Your task to perform on an android device: Show me recent news Image 0: 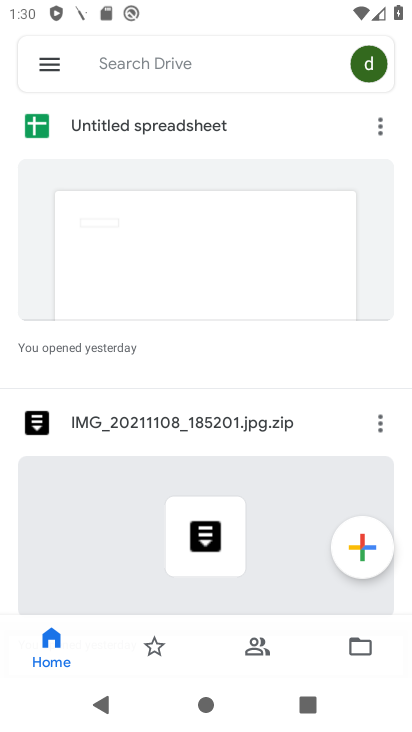
Step 0: press home button
Your task to perform on an android device: Show me recent news Image 1: 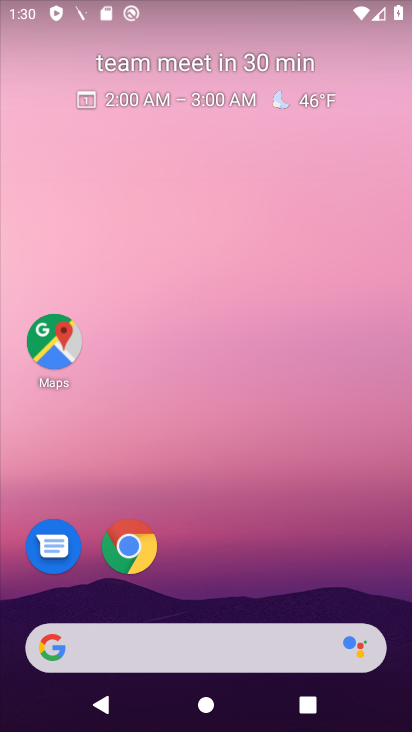
Step 1: task complete